Your task to perform on an android device: What is the news today? Image 0: 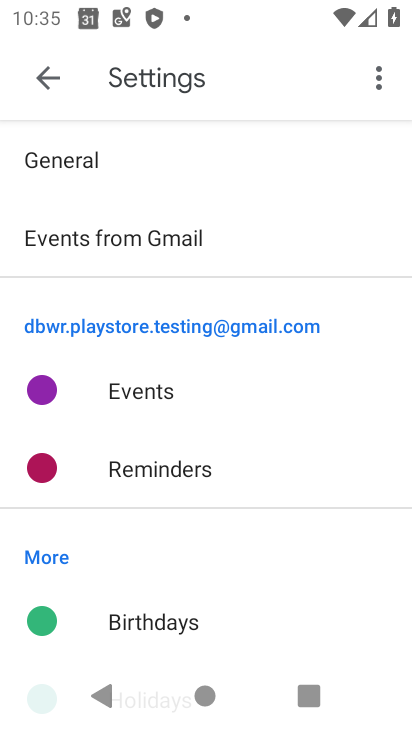
Step 0: press home button
Your task to perform on an android device: What is the news today? Image 1: 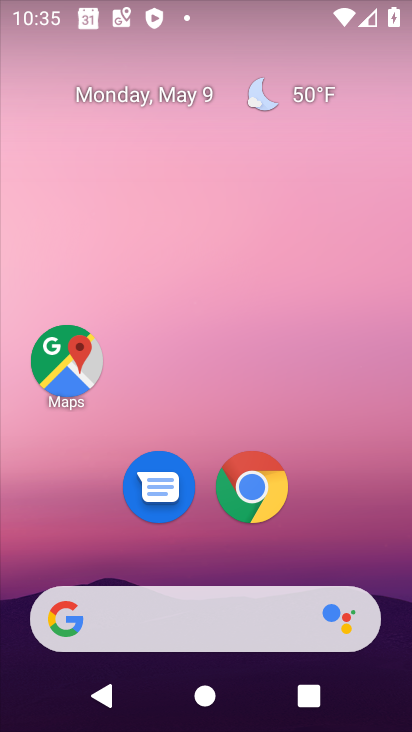
Step 1: click (191, 623)
Your task to perform on an android device: What is the news today? Image 2: 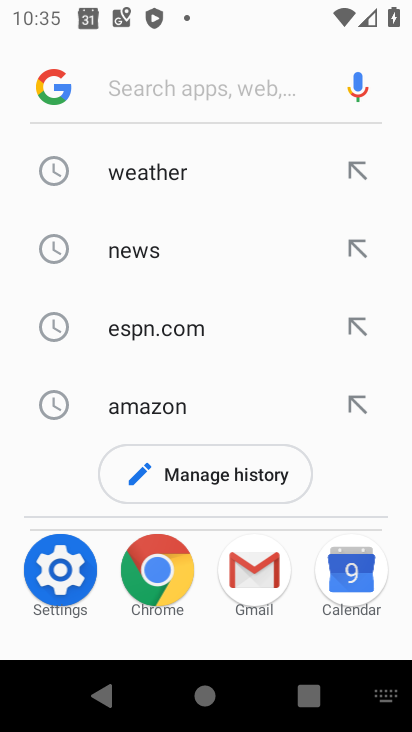
Step 2: click (175, 245)
Your task to perform on an android device: What is the news today? Image 3: 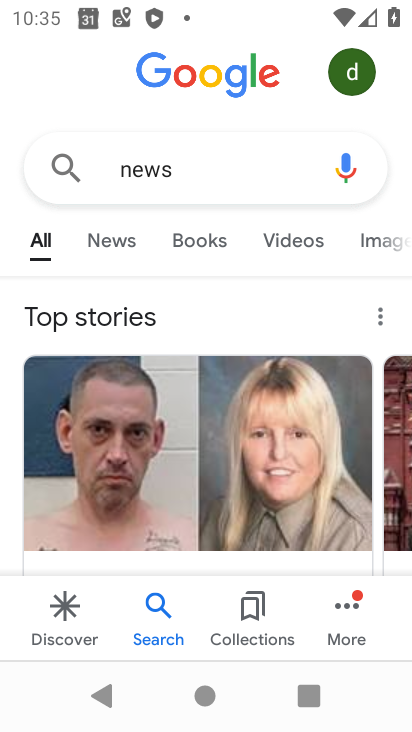
Step 3: task complete